Your task to perform on an android device: turn off sleep mode Image 0: 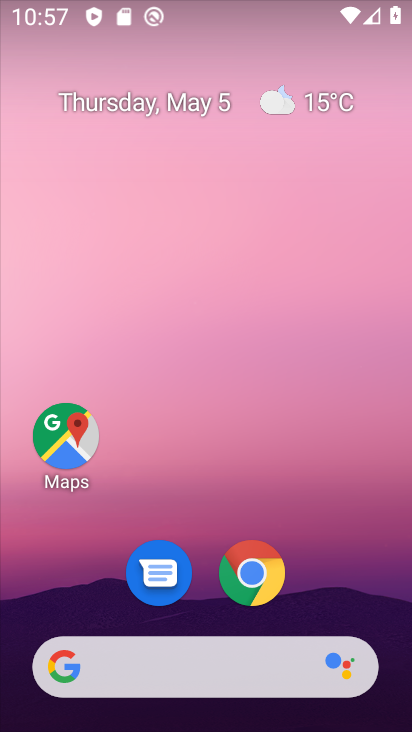
Step 0: drag from (85, 634) to (297, 71)
Your task to perform on an android device: turn off sleep mode Image 1: 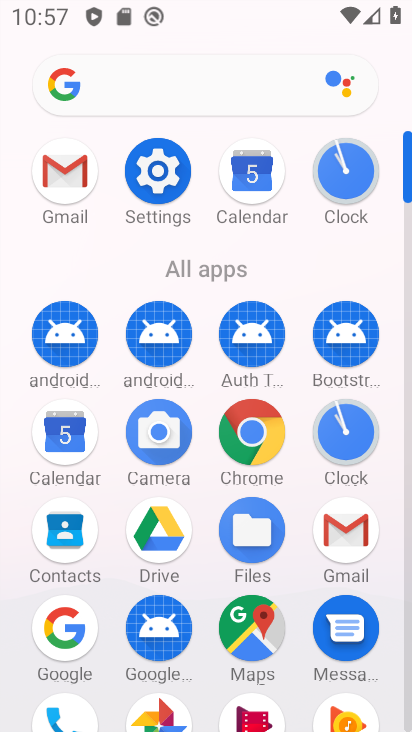
Step 1: drag from (178, 606) to (299, 229)
Your task to perform on an android device: turn off sleep mode Image 2: 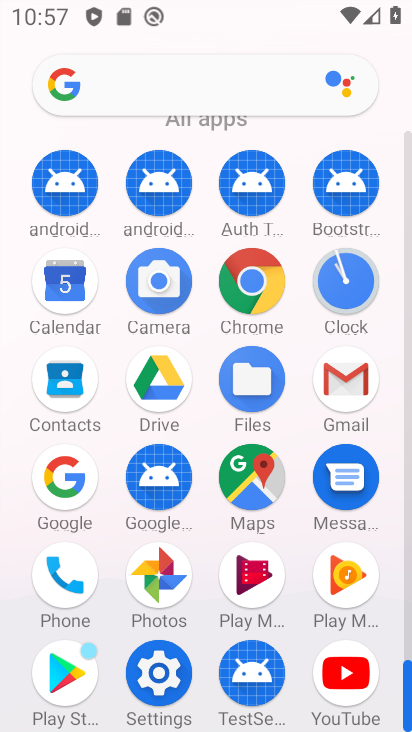
Step 2: click (150, 652)
Your task to perform on an android device: turn off sleep mode Image 3: 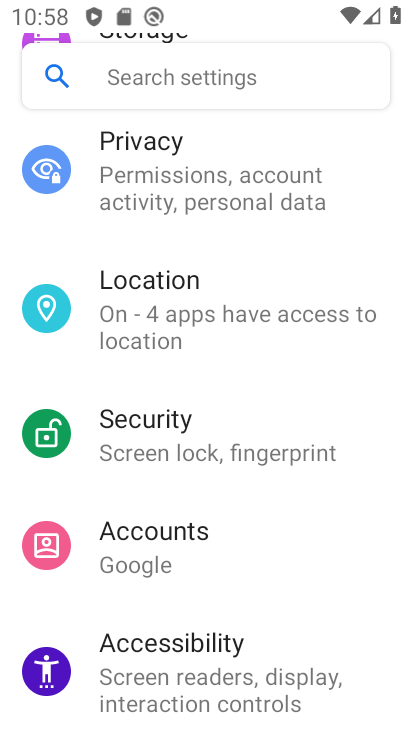
Step 3: drag from (267, 221) to (256, 617)
Your task to perform on an android device: turn off sleep mode Image 4: 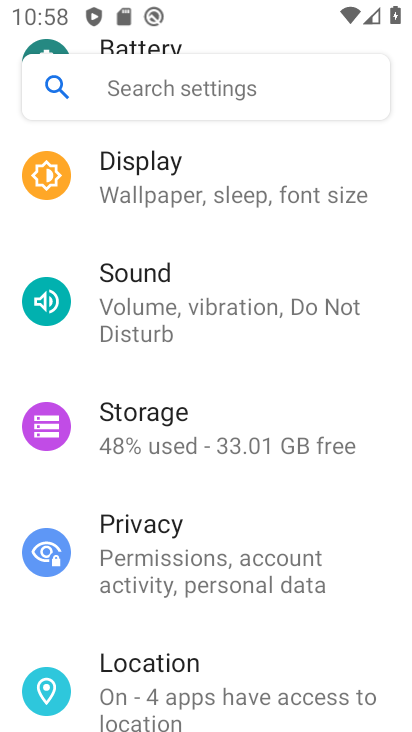
Step 4: drag from (280, 276) to (272, 504)
Your task to perform on an android device: turn off sleep mode Image 5: 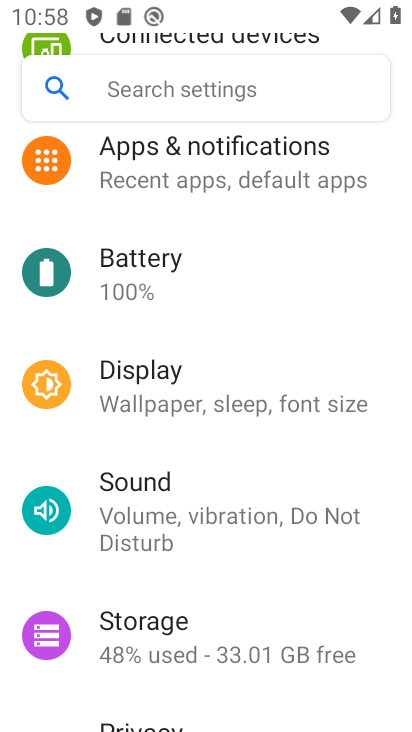
Step 5: click (161, 395)
Your task to perform on an android device: turn off sleep mode Image 6: 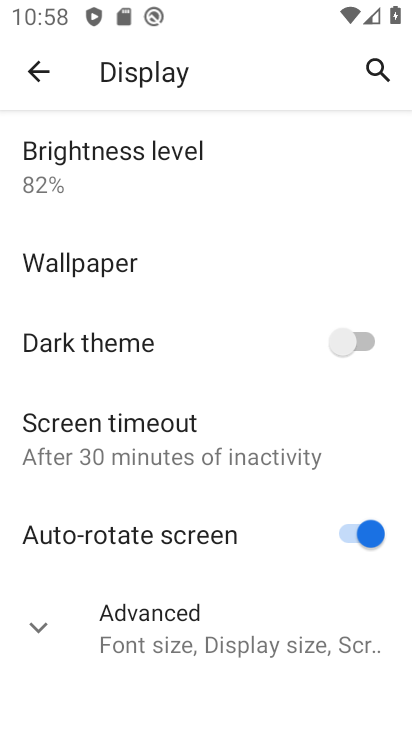
Step 6: click (159, 606)
Your task to perform on an android device: turn off sleep mode Image 7: 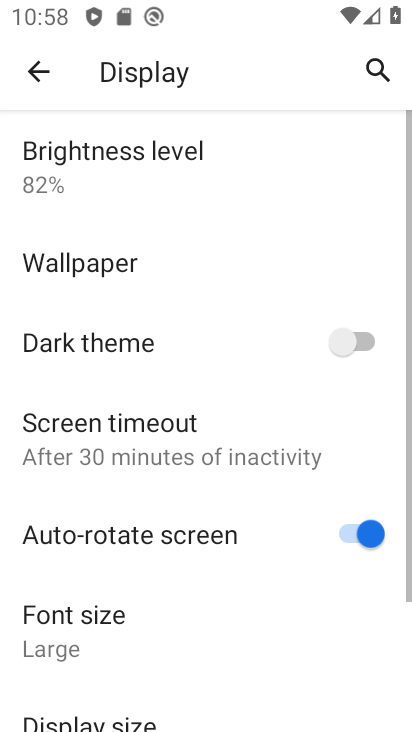
Step 7: drag from (145, 621) to (248, 235)
Your task to perform on an android device: turn off sleep mode Image 8: 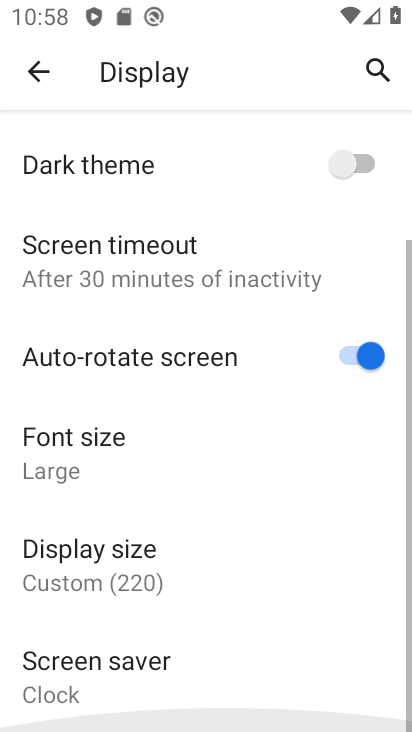
Step 8: click (203, 258)
Your task to perform on an android device: turn off sleep mode Image 9: 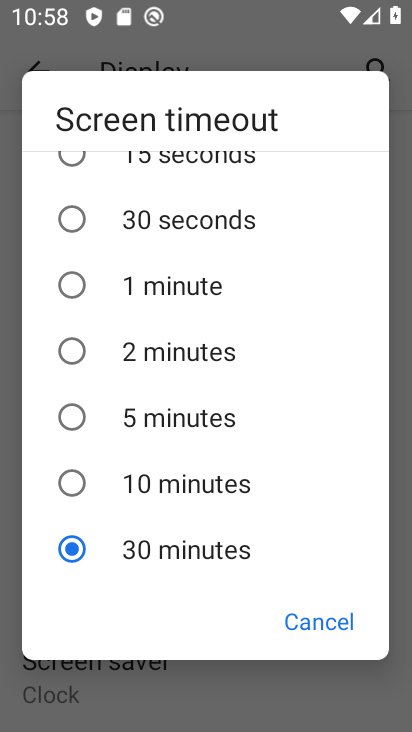
Step 9: task complete